Your task to perform on an android device: toggle notifications settings in the gmail app Image 0: 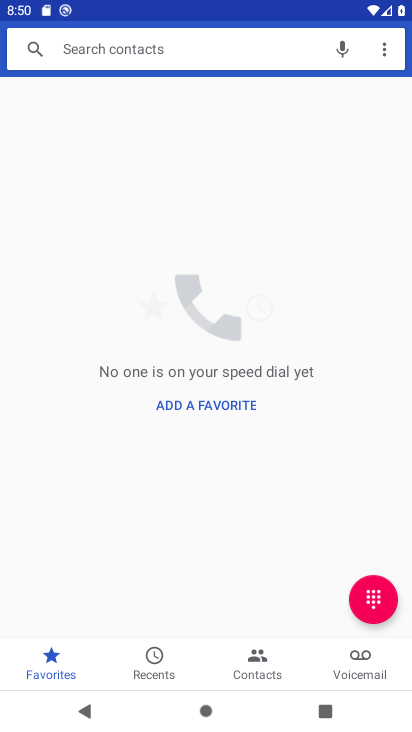
Step 0: press home button
Your task to perform on an android device: toggle notifications settings in the gmail app Image 1: 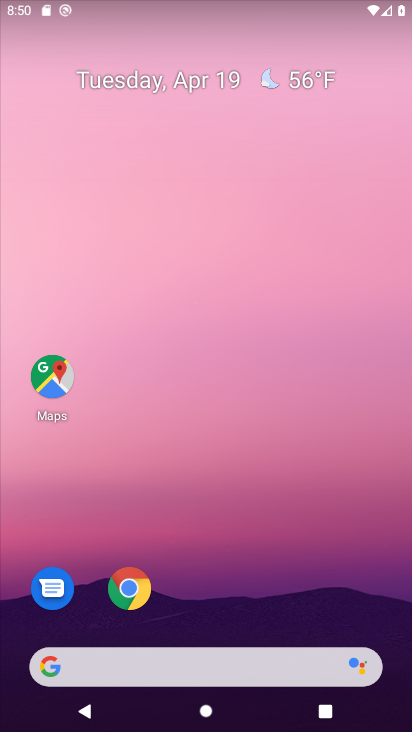
Step 1: drag from (208, 558) to (266, 167)
Your task to perform on an android device: toggle notifications settings in the gmail app Image 2: 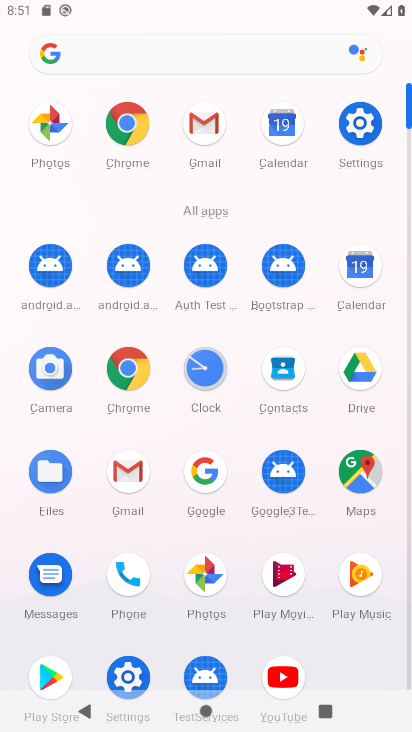
Step 2: click (126, 458)
Your task to perform on an android device: toggle notifications settings in the gmail app Image 3: 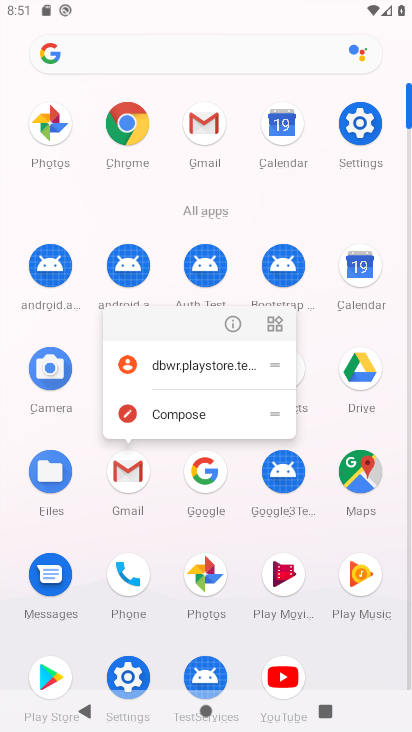
Step 3: click (119, 476)
Your task to perform on an android device: toggle notifications settings in the gmail app Image 4: 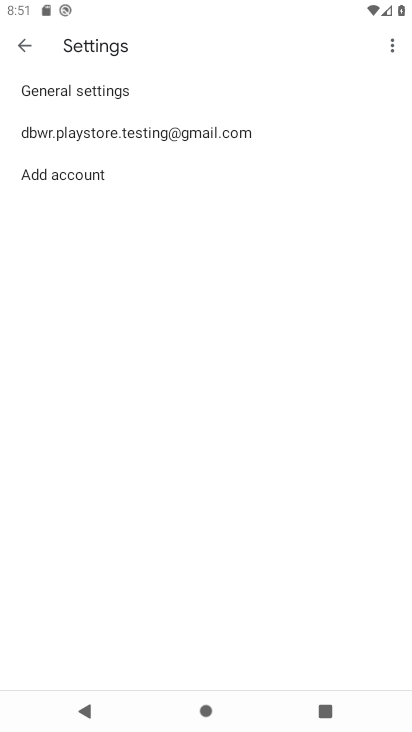
Step 4: click (97, 78)
Your task to perform on an android device: toggle notifications settings in the gmail app Image 5: 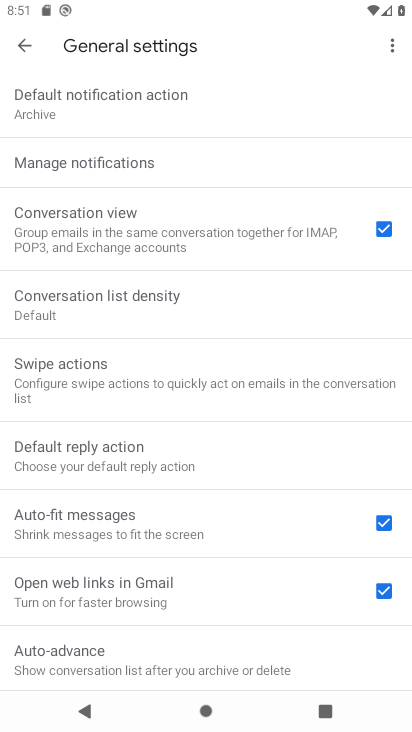
Step 5: click (117, 155)
Your task to perform on an android device: toggle notifications settings in the gmail app Image 6: 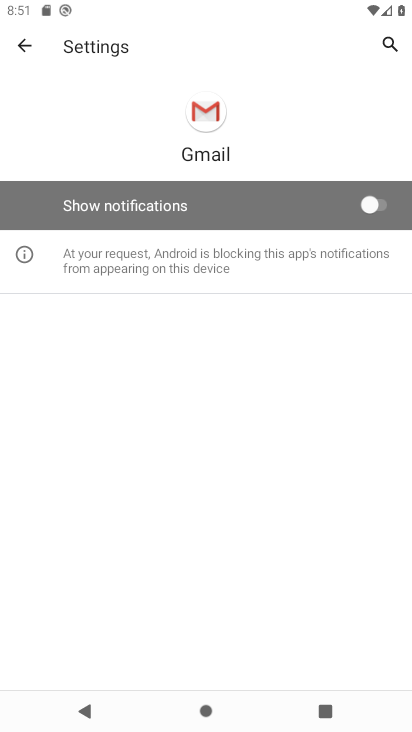
Step 6: click (369, 197)
Your task to perform on an android device: toggle notifications settings in the gmail app Image 7: 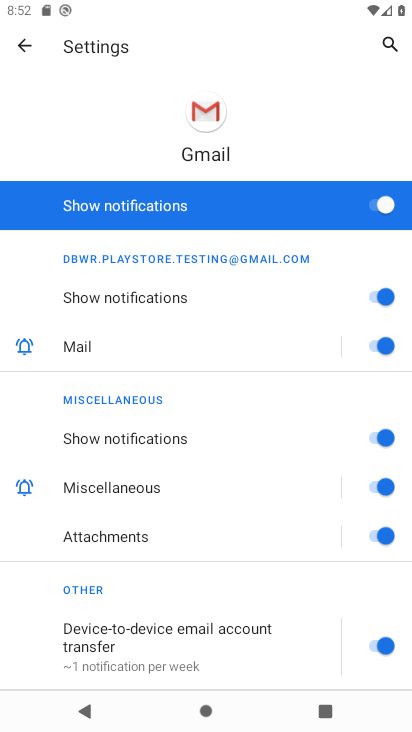
Step 7: task complete